Your task to perform on an android device: install app "Paramount+ | Peak Streaming" Image 0: 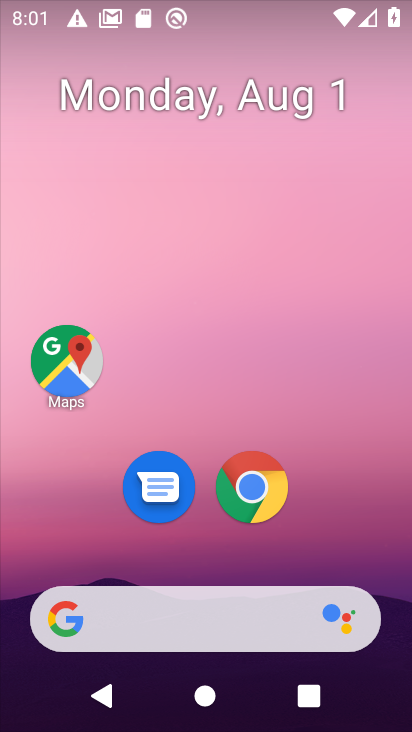
Step 0: drag from (370, 455) to (379, 57)
Your task to perform on an android device: install app "Paramount+ | Peak Streaming" Image 1: 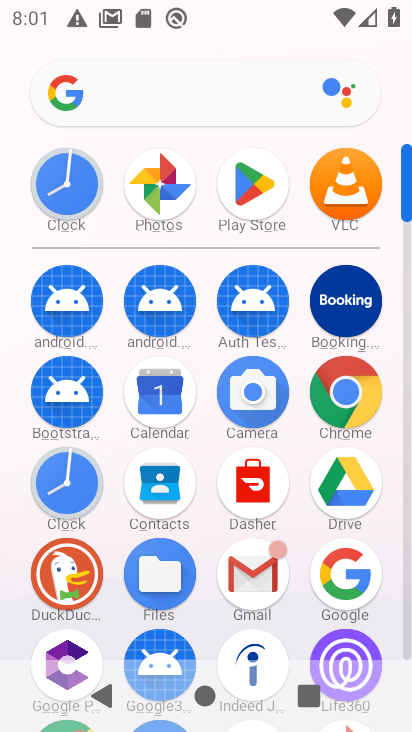
Step 1: click (255, 189)
Your task to perform on an android device: install app "Paramount+ | Peak Streaming" Image 2: 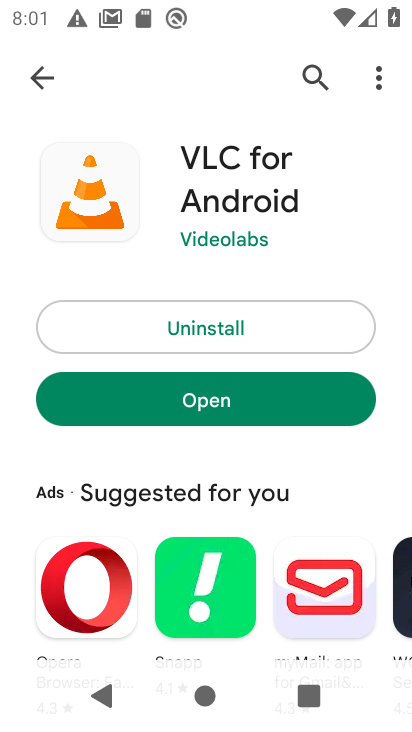
Step 2: click (317, 79)
Your task to perform on an android device: install app "Paramount+ | Peak Streaming" Image 3: 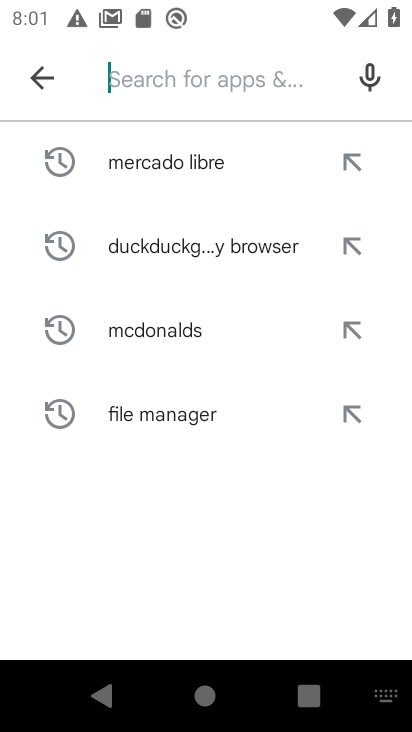
Step 3: type "Paramount+ | Peak Streaming"
Your task to perform on an android device: install app "Paramount+ | Peak Streaming" Image 4: 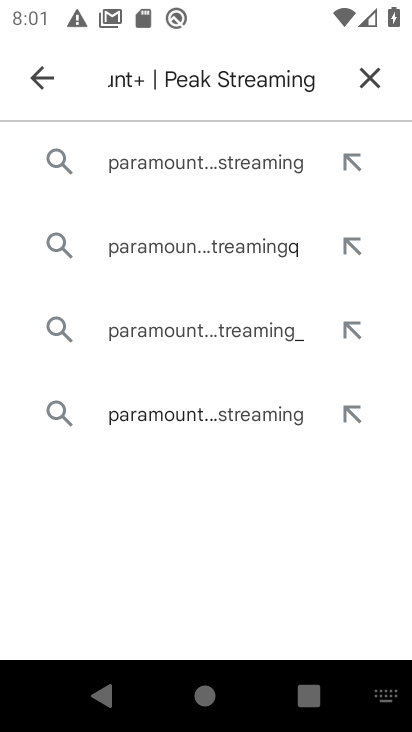
Step 4: click (293, 169)
Your task to perform on an android device: install app "Paramount+ | Peak Streaming" Image 5: 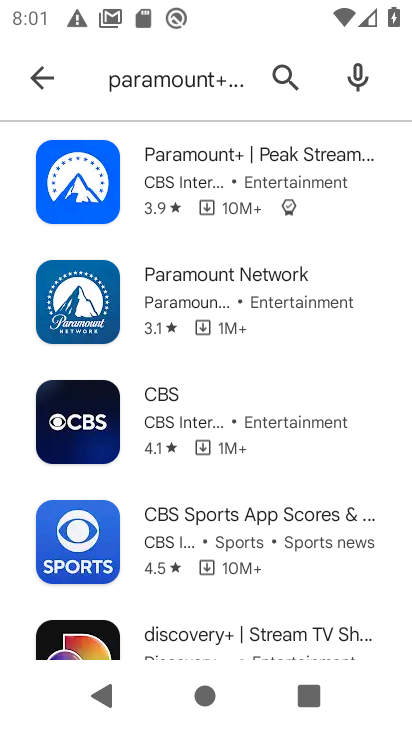
Step 5: task complete